Your task to perform on an android device: Open Chrome and go to the settings page Image 0: 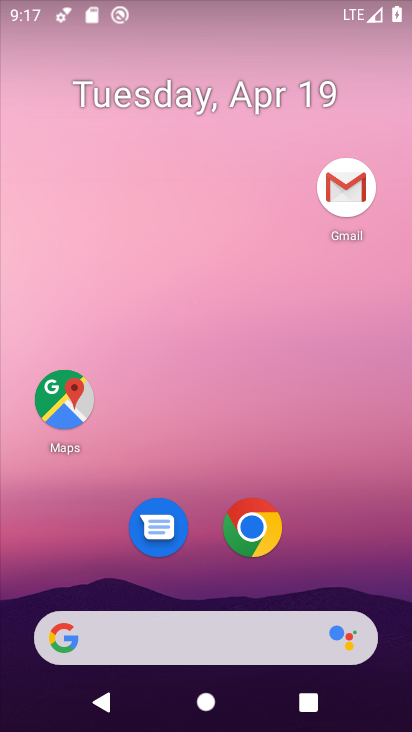
Step 0: click (252, 533)
Your task to perform on an android device: Open Chrome and go to the settings page Image 1: 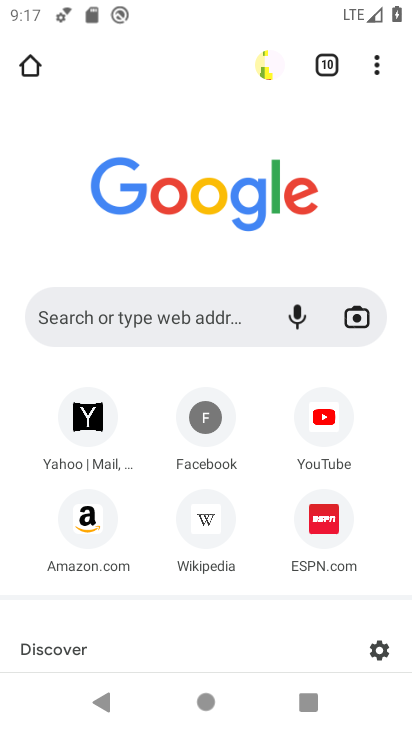
Step 1: click (394, 82)
Your task to perform on an android device: Open Chrome and go to the settings page Image 2: 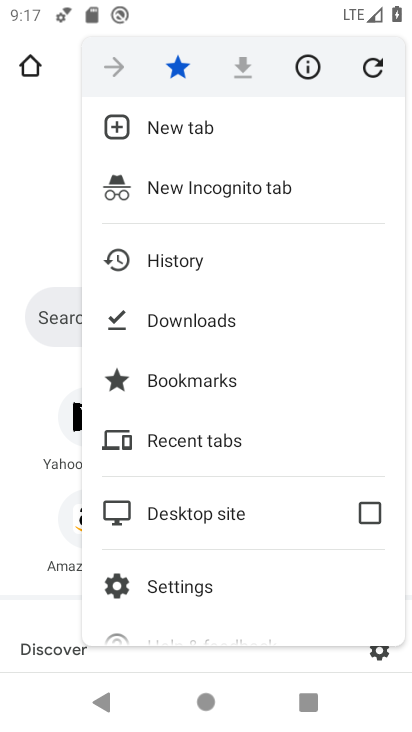
Step 2: drag from (254, 506) to (314, 252)
Your task to perform on an android device: Open Chrome and go to the settings page Image 3: 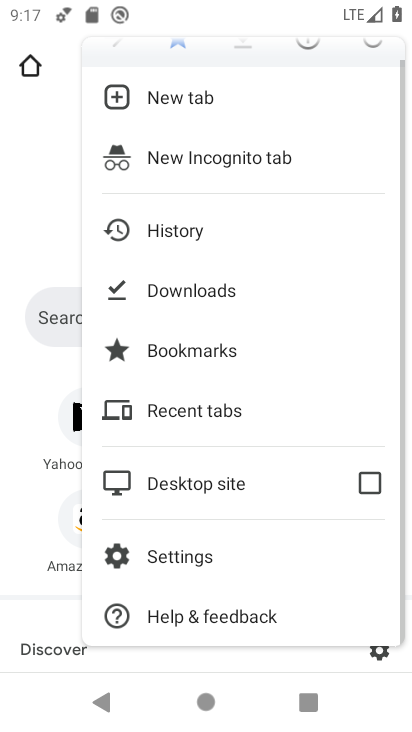
Step 3: click (200, 560)
Your task to perform on an android device: Open Chrome and go to the settings page Image 4: 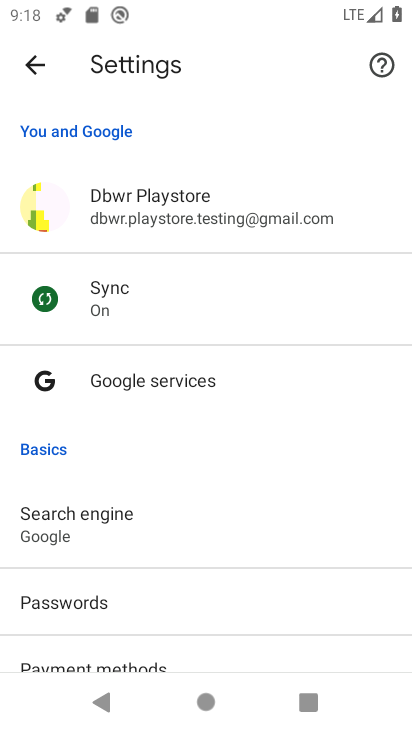
Step 4: task complete